Your task to perform on an android device: toggle location history Image 0: 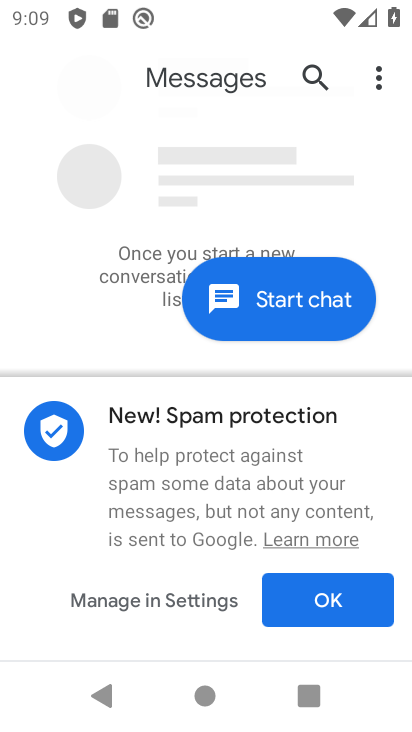
Step 0: press home button
Your task to perform on an android device: toggle location history Image 1: 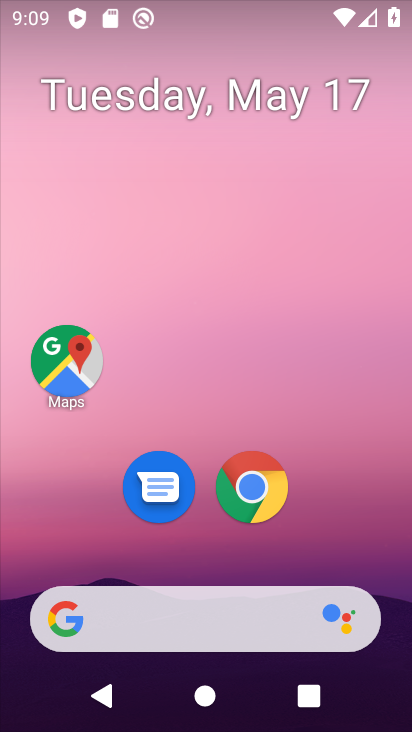
Step 1: drag from (281, 656) to (294, 197)
Your task to perform on an android device: toggle location history Image 2: 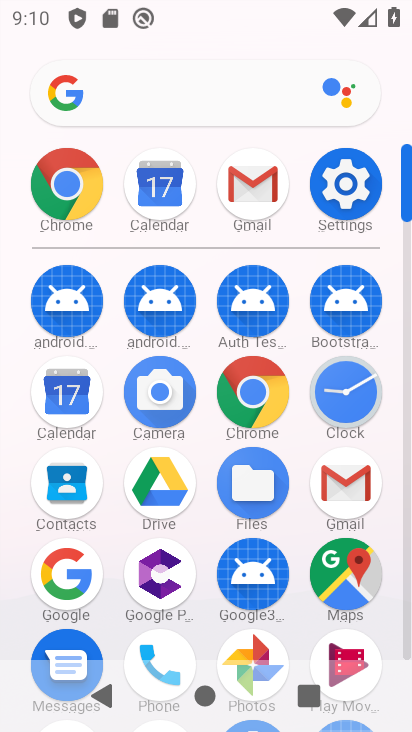
Step 2: click (363, 196)
Your task to perform on an android device: toggle location history Image 3: 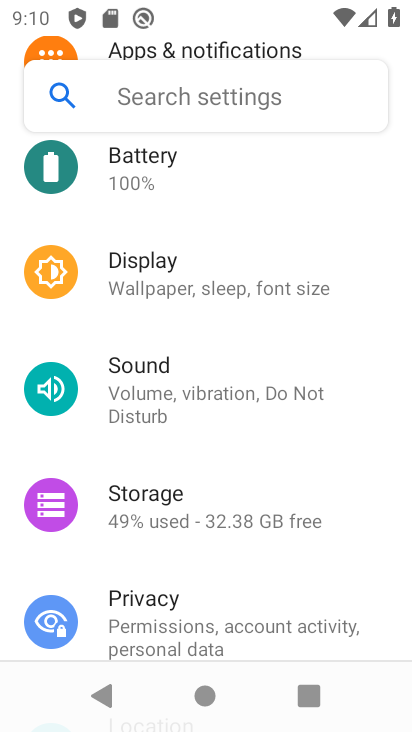
Step 3: click (174, 92)
Your task to perform on an android device: toggle location history Image 4: 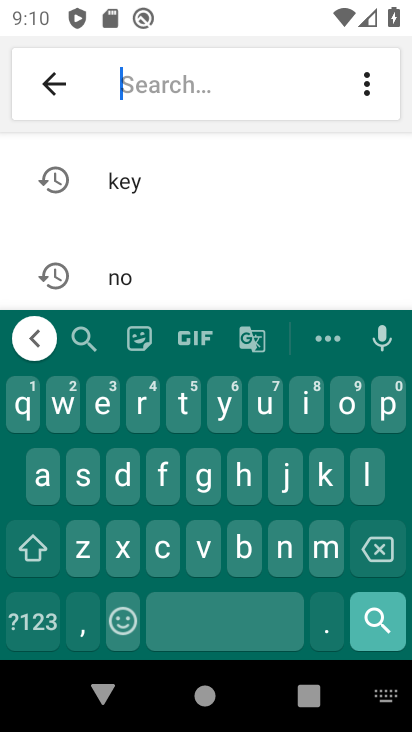
Step 4: click (374, 483)
Your task to perform on an android device: toggle location history Image 5: 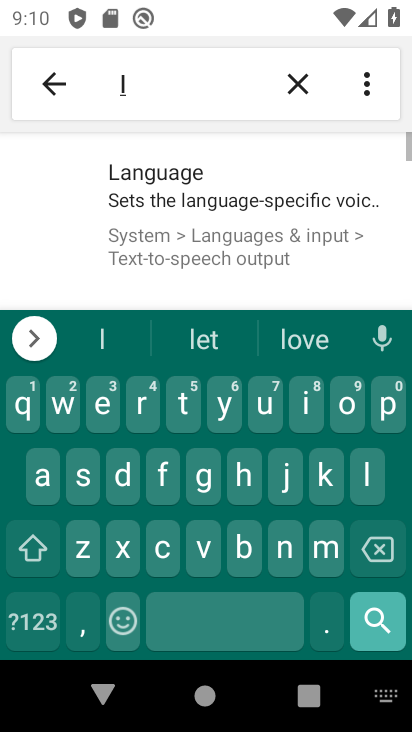
Step 5: click (349, 417)
Your task to perform on an android device: toggle location history Image 6: 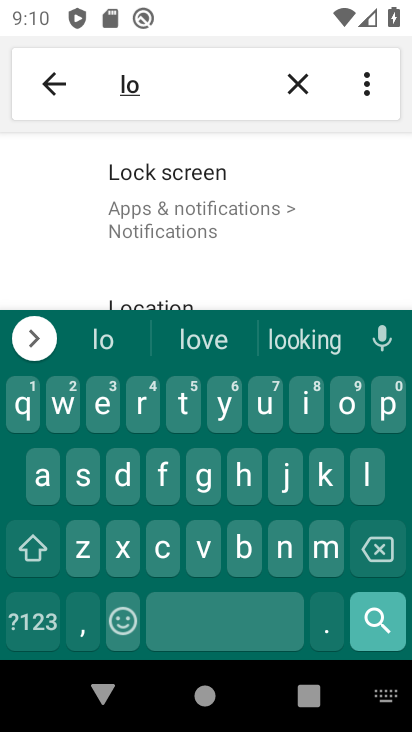
Step 6: drag from (151, 278) to (183, 171)
Your task to perform on an android device: toggle location history Image 7: 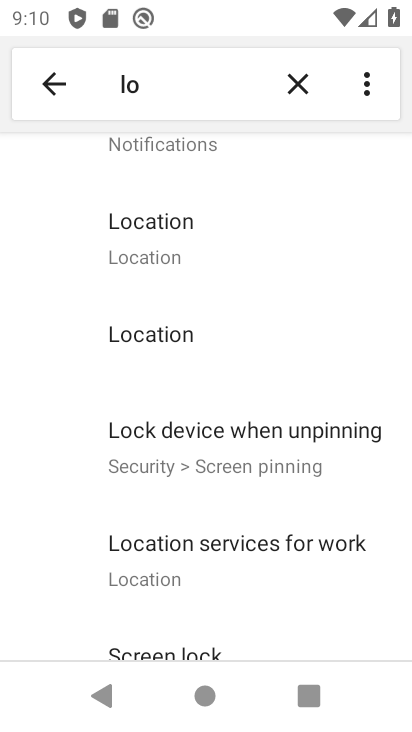
Step 7: click (177, 244)
Your task to perform on an android device: toggle location history Image 8: 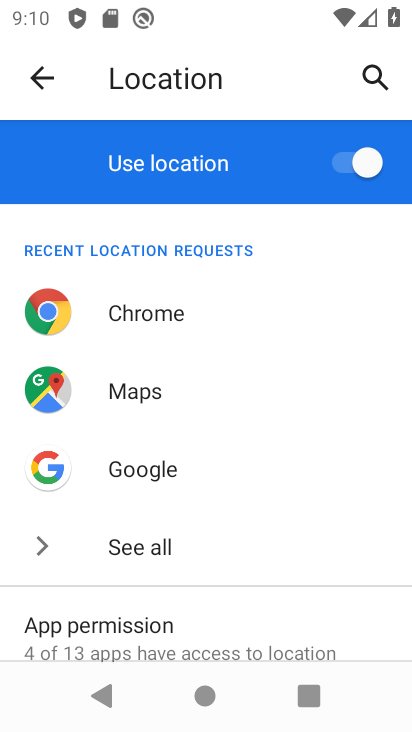
Step 8: task complete